Your task to perform on an android device: Open Reddit.com Image 0: 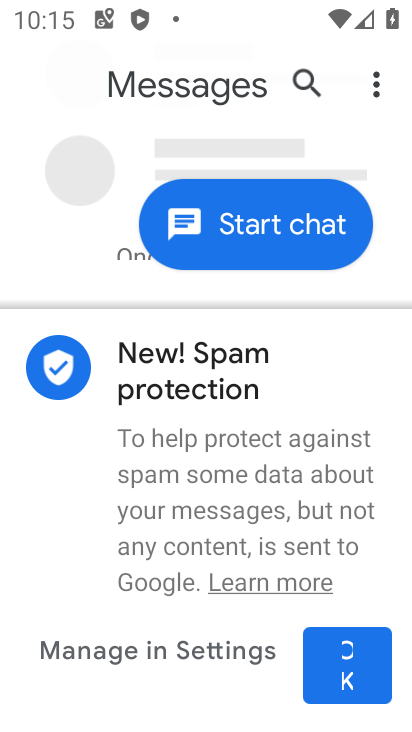
Step 0: press home button
Your task to perform on an android device: Open Reddit.com Image 1: 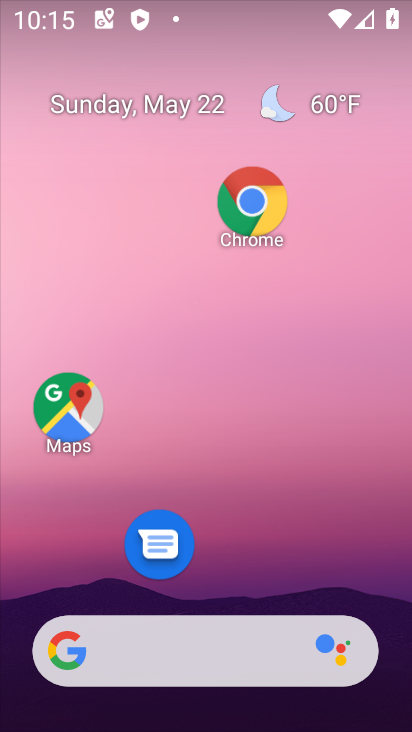
Step 1: drag from (280, 561) to (287, 2)
Your task to perform on an android device: Open Reddit.com Image 2: 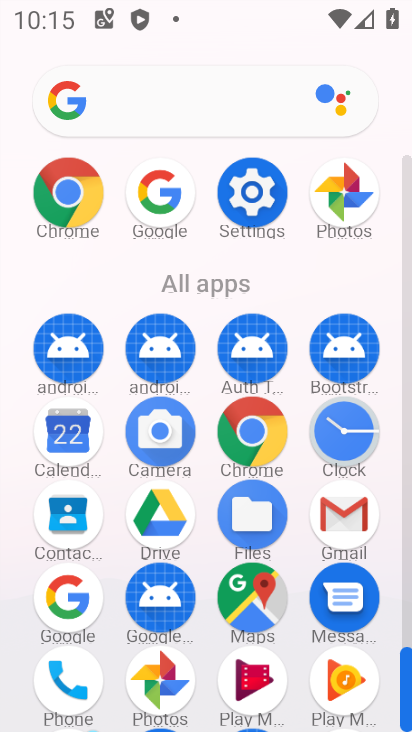
Step 2: click (68, 188)
Your task to perform on an android device: Open Reddit.com Image 3: 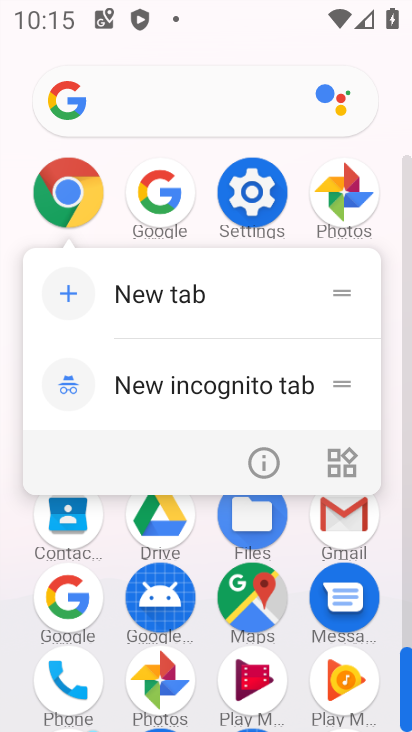
Step 3: click (142, 188)
Your task to perform on an android device: Open Reddit.com Image 4: 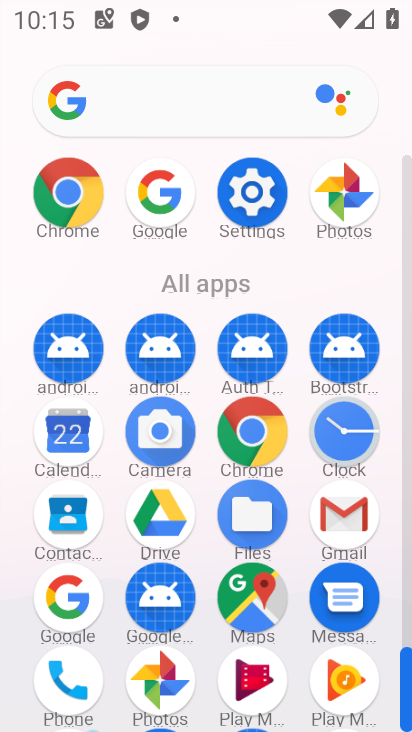
Step 4: click (168, 197)
Your task to perform on an android device: Open Reddit.com Image 5: 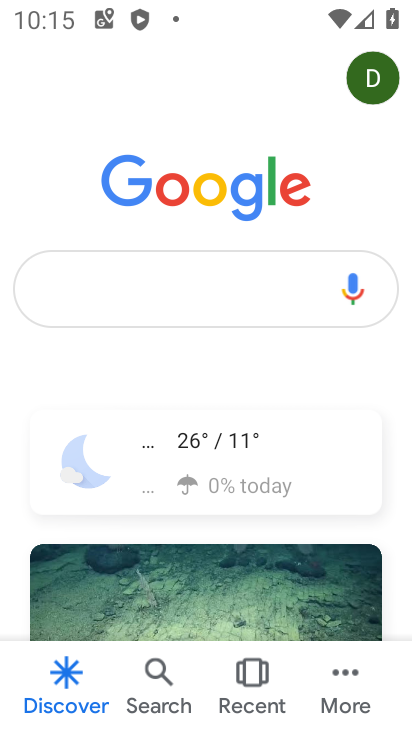
Step 5: click (160, 271)
Your task to perform on an android device: Open Reddit.com Image 6: 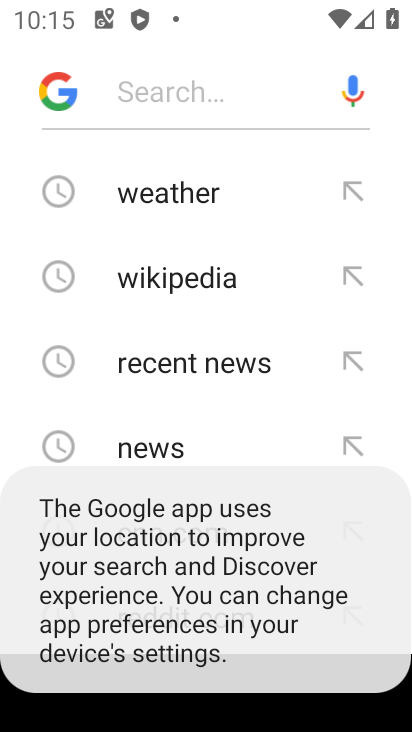
Step 6: drag from (186, 356) to (205, 56)
Your task to perform on an android device: Open Reddit.com Image 7: 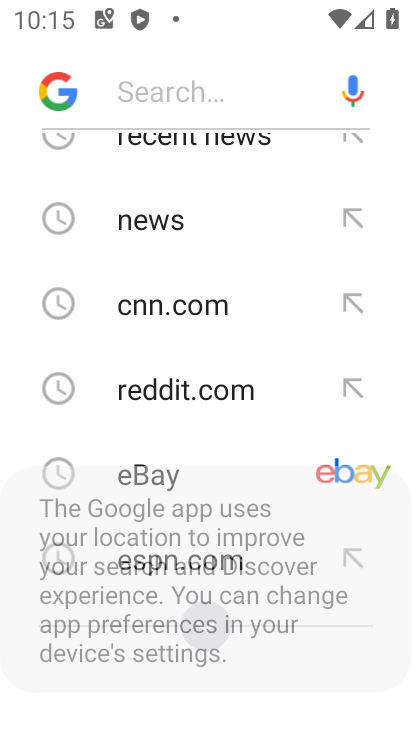
Step 7: click (145, 392)
Your task to perform on an android device: Open Reddit.com Image 8: 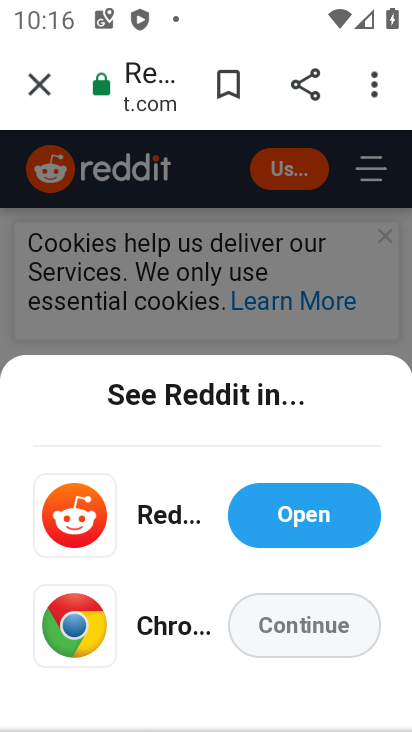
Step 8: task complete